Your task to perform on an android device: add a label to a message in the gmail app Image 0: 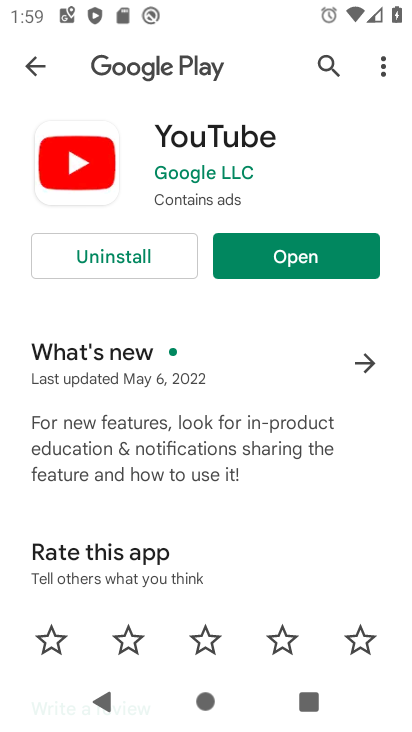
Step 0: press home button
Your task to perform on an android device: add a label to a message in the gmail app Image 1: 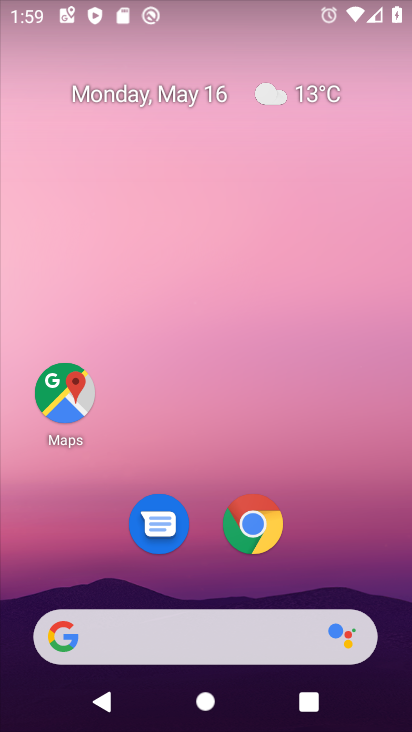
Step 1: drag from (314, 530) to (308, 26)
Your task to perform on an android device: add a label to a message in the gmail app Image 2: 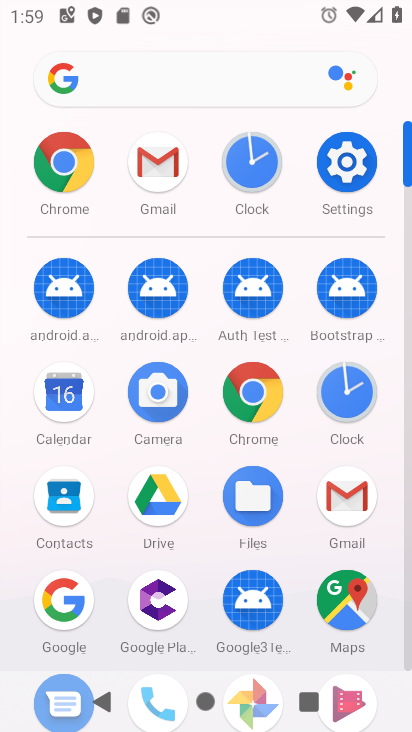
Step 2: click (157, 157)
Your task to perform on an android device: add a label to a message in the gmail app Image 3: 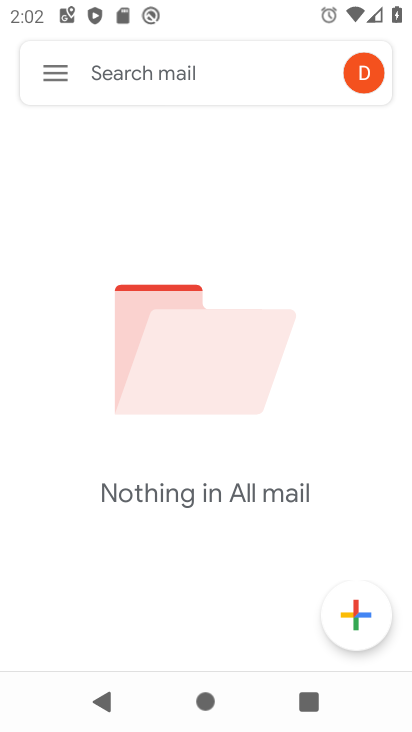
Step 3: task complete